Your task to perform on an android device: Open the Play Movies app and select the watchlist tab. Image 0: 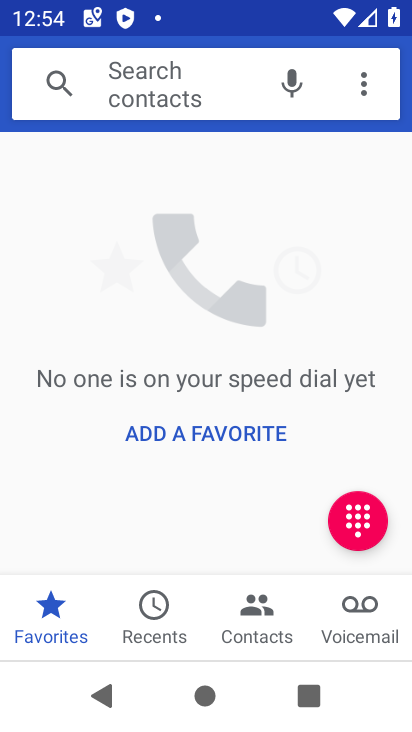
Step 0: press back button
Your task to perform on an android device: Open the Play Movies app and select the watchlist tab. Image 1: 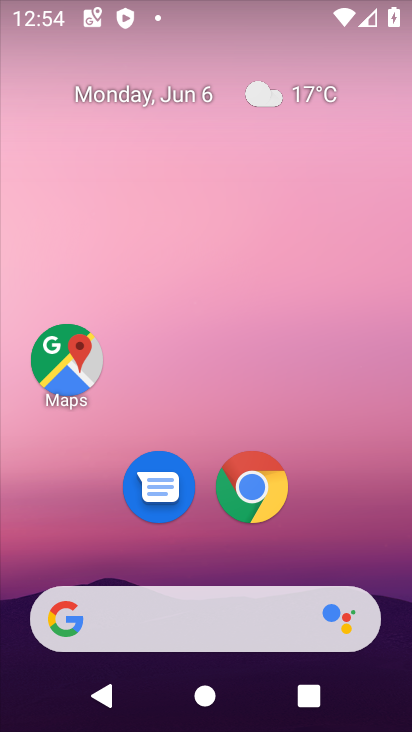
Step 1: drag from (212, 545) to (210, 12)
Your task to perform on an android device: Open the Play Movies app and select the watchlist tab. Image 2: 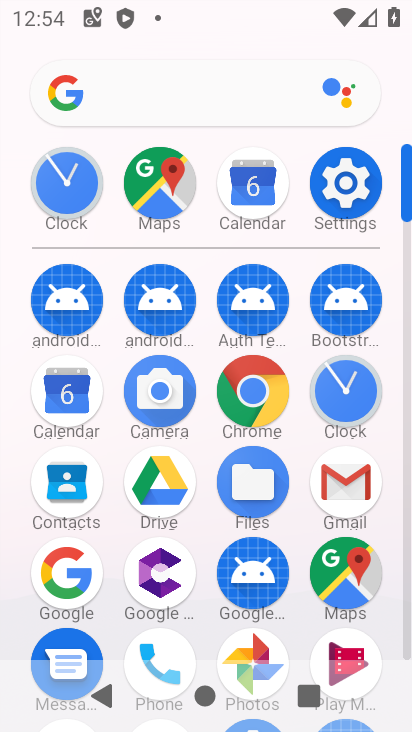
Step 2: click (321, 644)
Your task to perform on an android device: Open the Play Movies app and select the watchlist tab. Image 3: 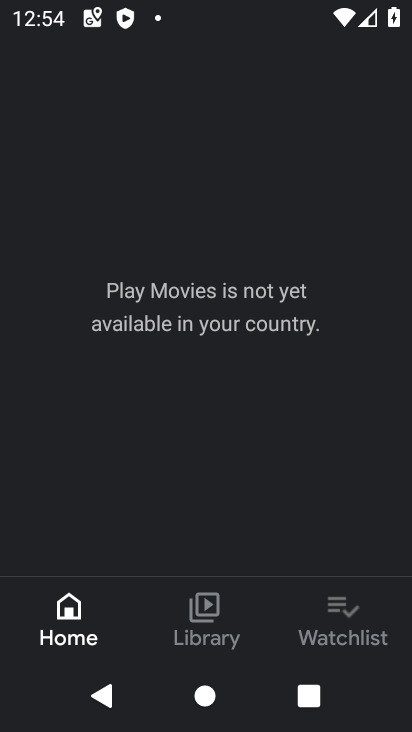
Step 3: click (358, 632)
Your task to perform on an android device: Open the Play Movies app and select the watchlist tab. Image 4: 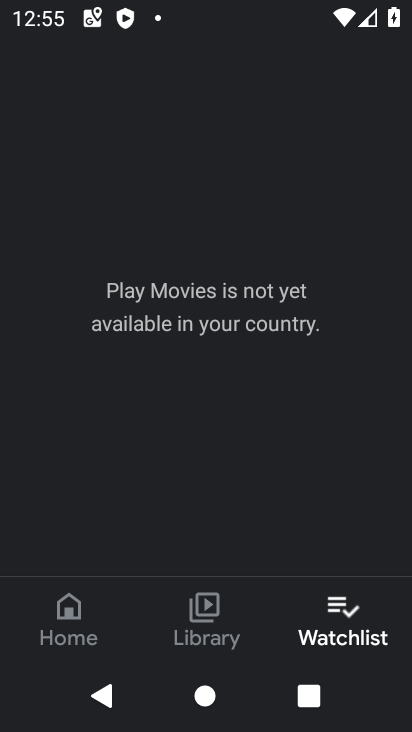
Step 4: task complete